Your task to perform on an android device: Play the latest video from the New York Times Image 0: 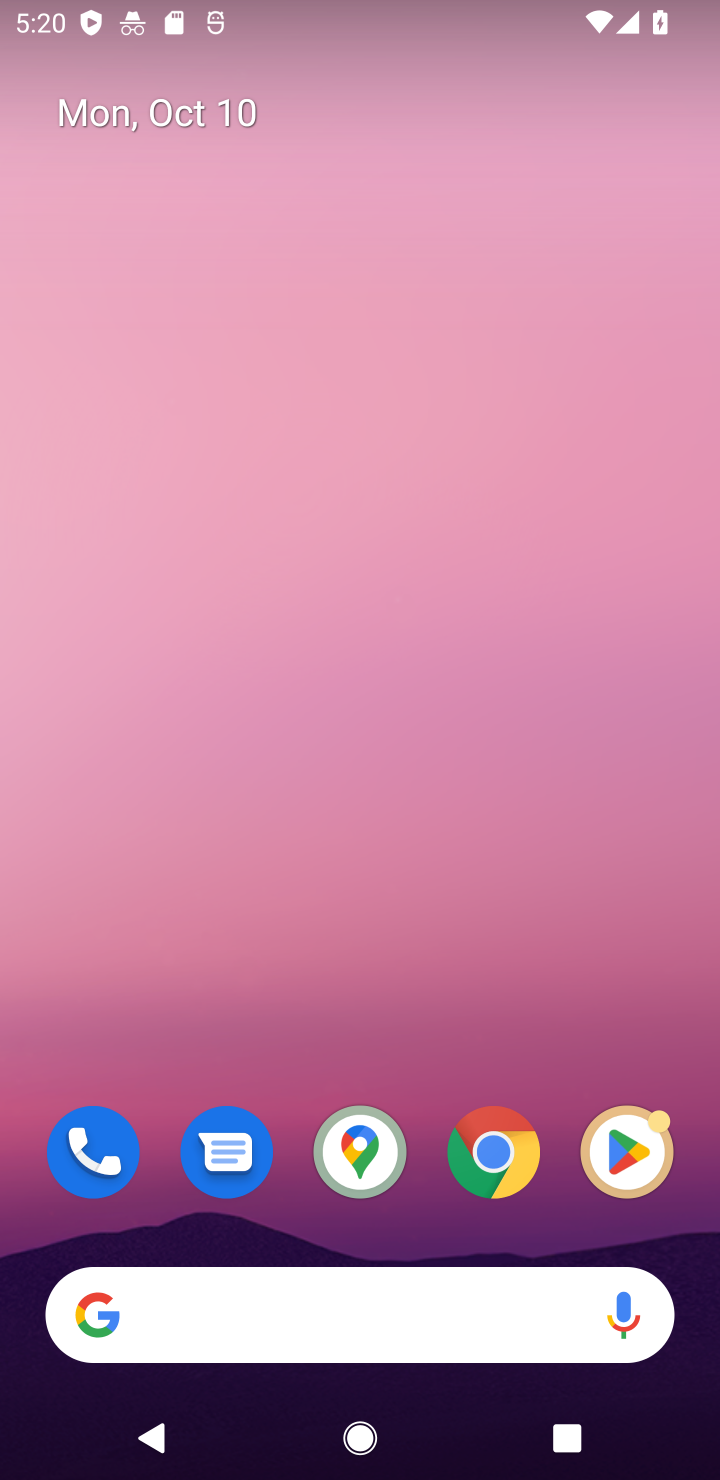
Step 0: drag from (326, 1197) to (422, 79)
Your task to perform on an android device: Play the latest video from the New York Times Image 1: 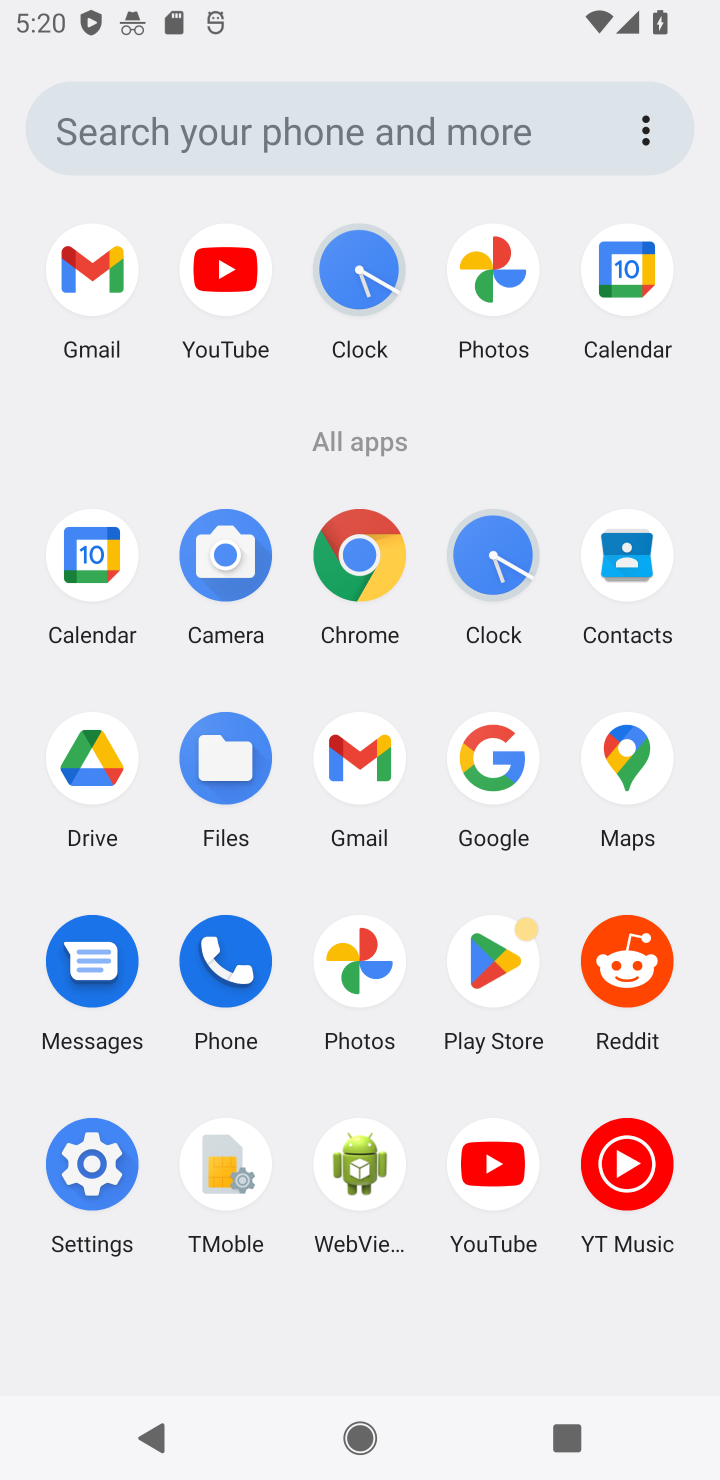
Step 1: click (490, 1160)
Your task to perform on an android device: Play the latest video from the New York Times Image 2: 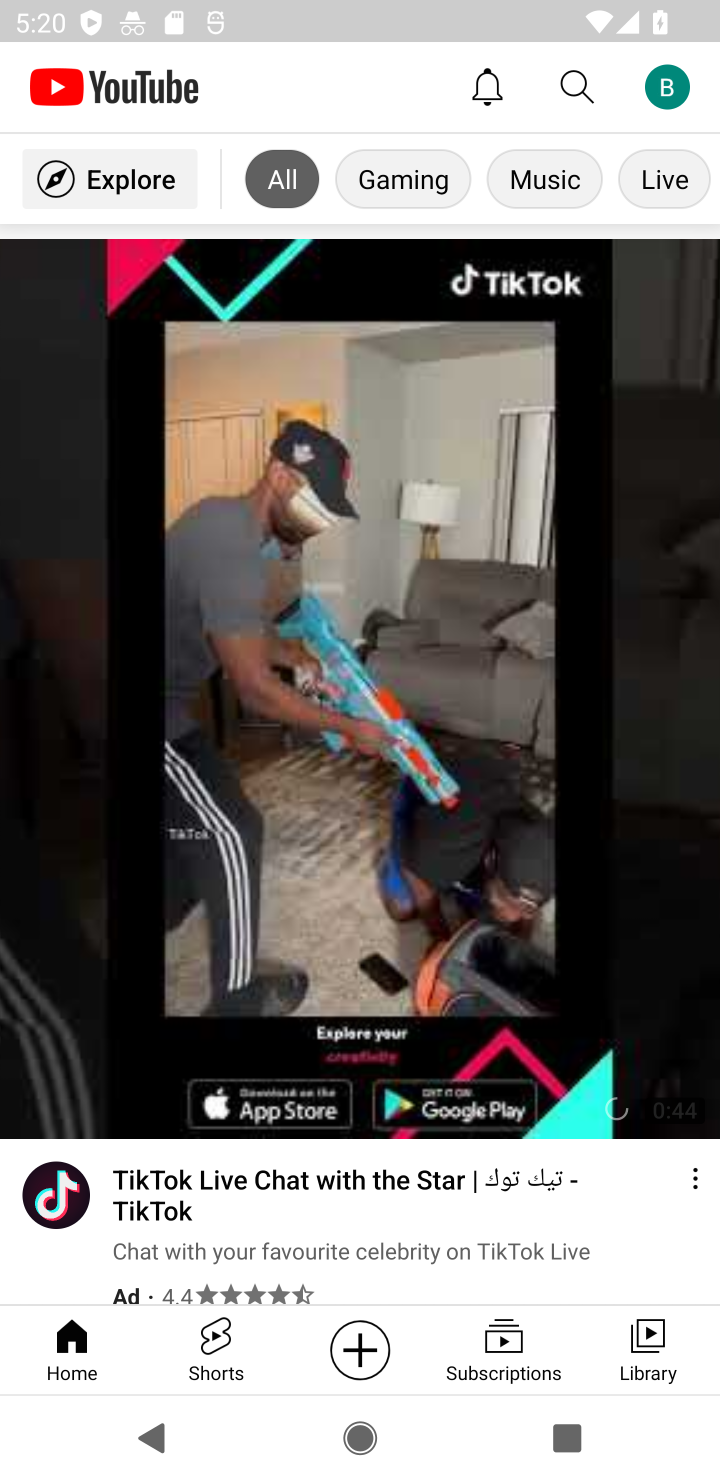
Step 2: click (580, 94)
Your task to perform on an android device: Play the latest video from the New York Times Image 3: 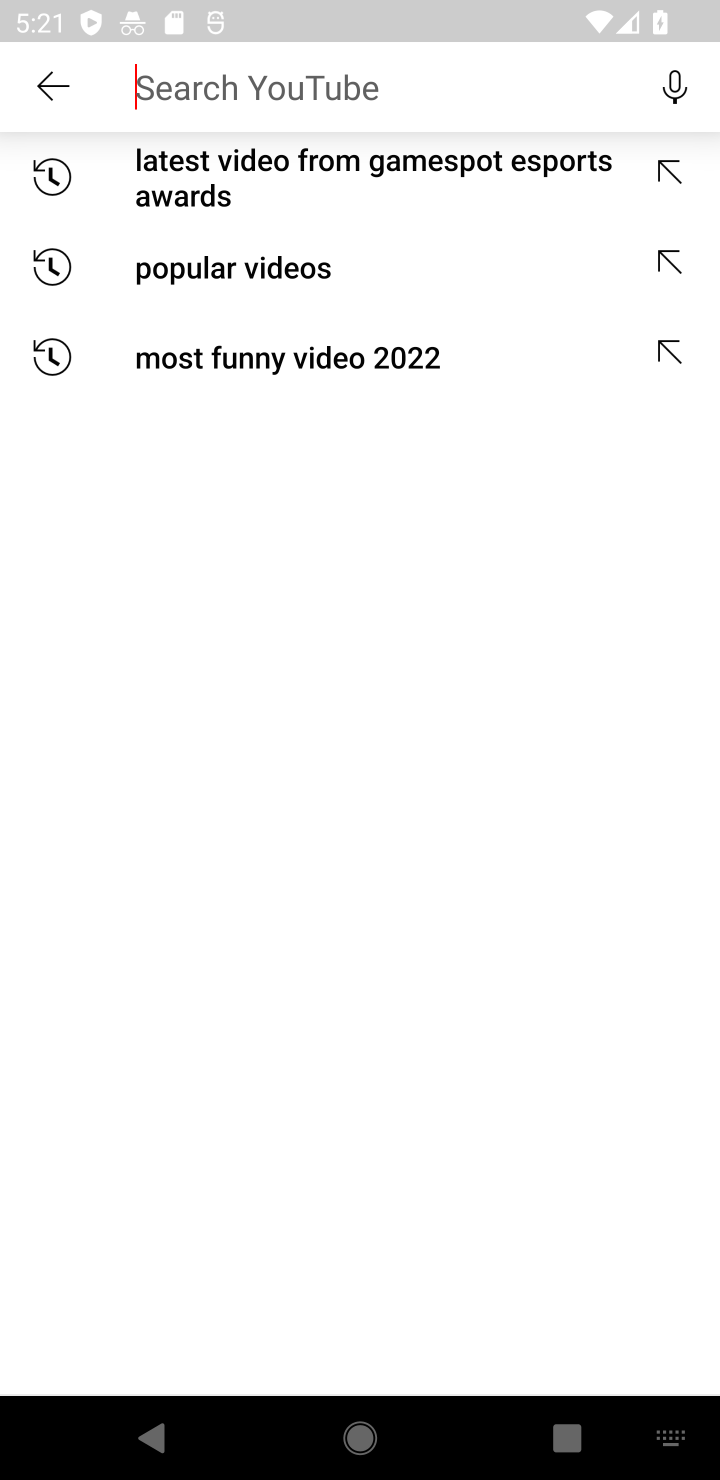
Step 3: type "latest video from the New York Times"
Your task to perform on an android device: Play the latest video from the New York Times Image 4: 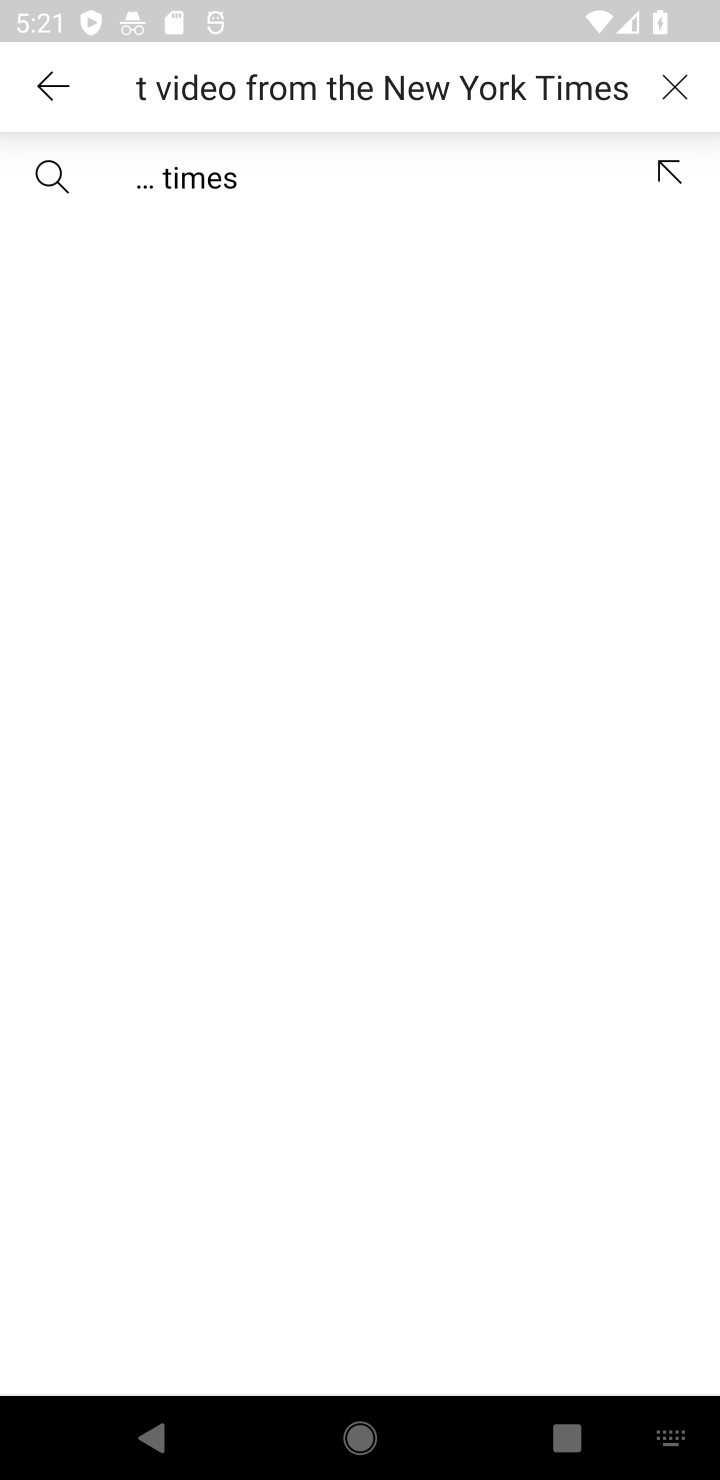
Step 4: click (231, 184)
Your task to perform on an android device: Play the latest video from the New York Times Image 5: 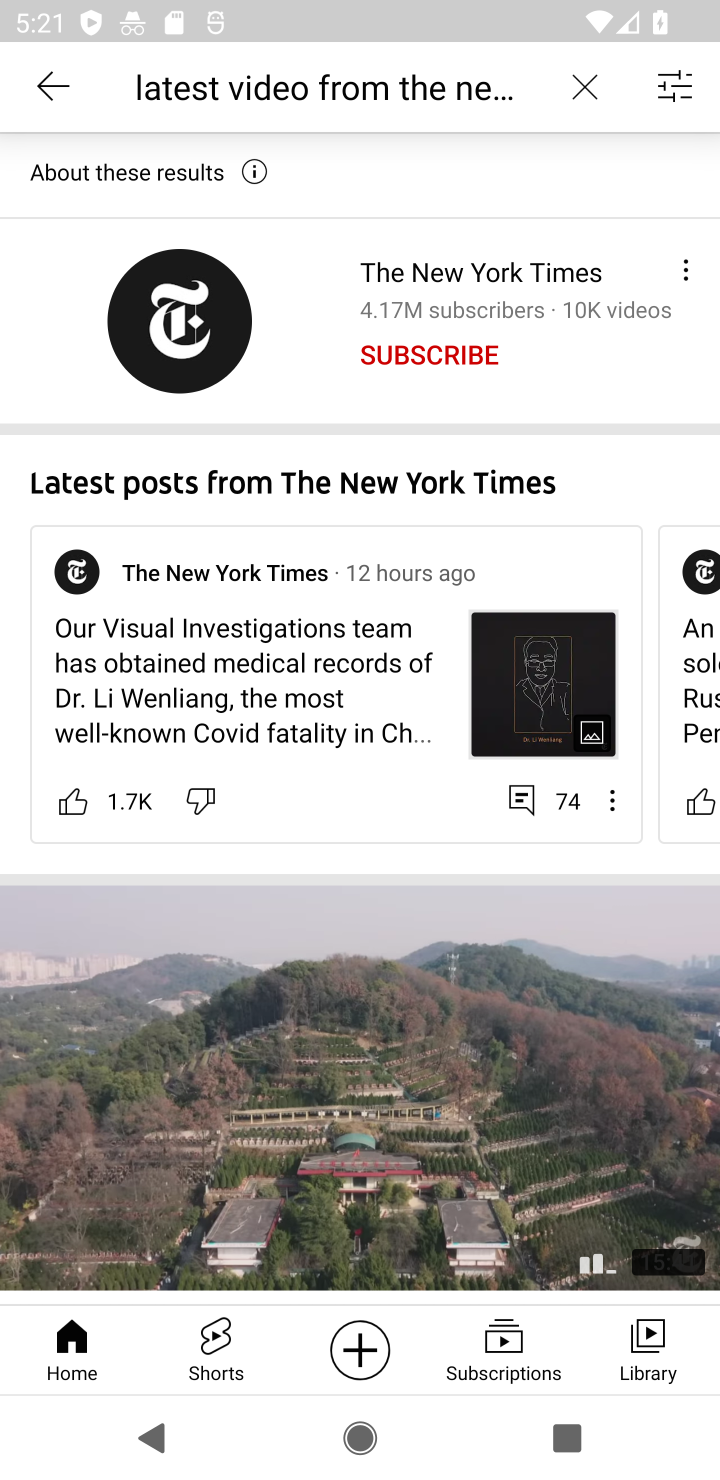
Step 5: drag from (374, 1091) to (581, 616)
Your task to perform on an android device: Play the latest video from the New York Times Image 6: 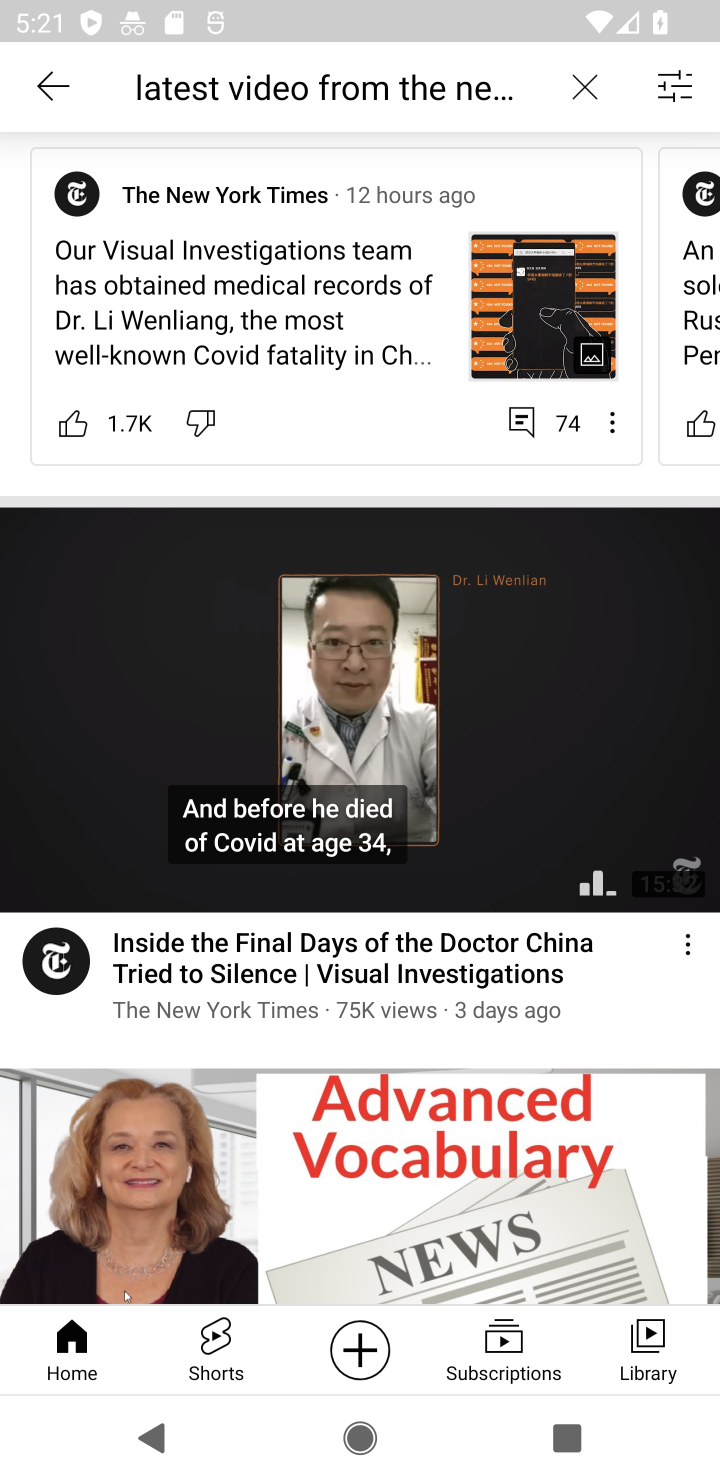
Step 6: click (334, 764)
Your task to perform on an android device: Play the latest video from the New York Times Image 7: 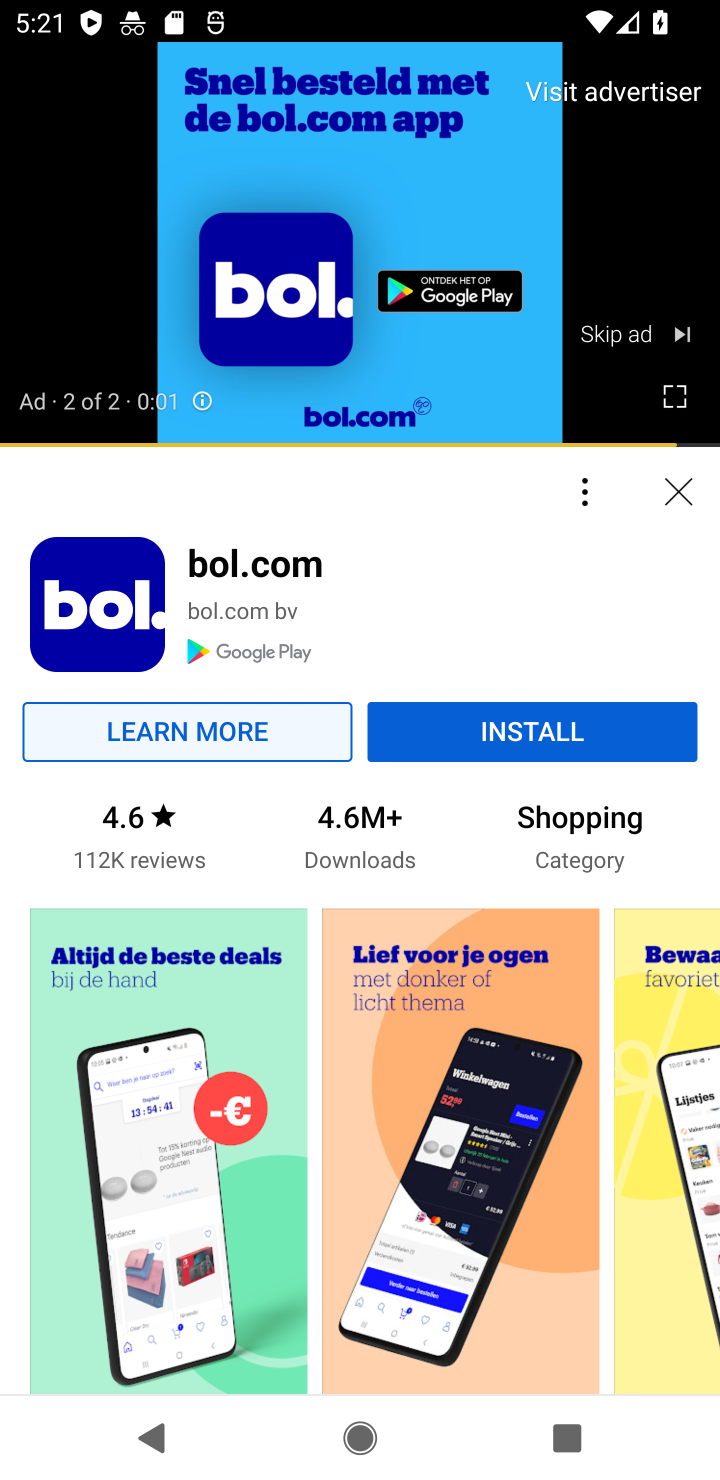
Step 7: click (638, 338)
Your task to perform on an android device: Play the latest video from the New York Times Image 8: 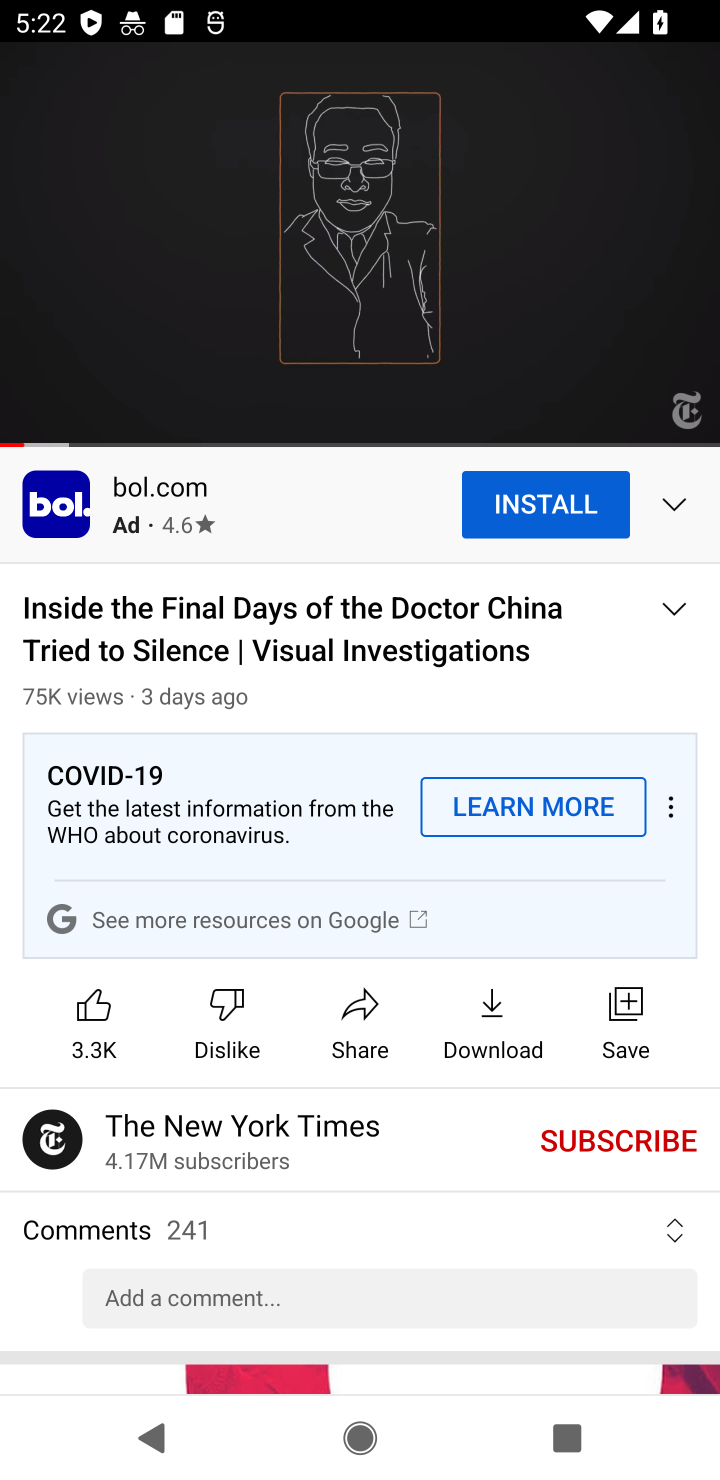
Step 8: task complete